Your task to perform on an android device: check battery use Image 0: 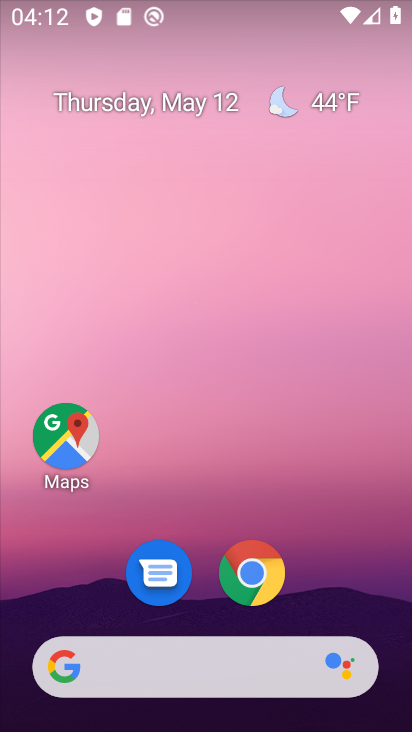
Step 0: drag from (382, 641) to (330, 134)
Your task to perform on an android device: check battery use Image 1: 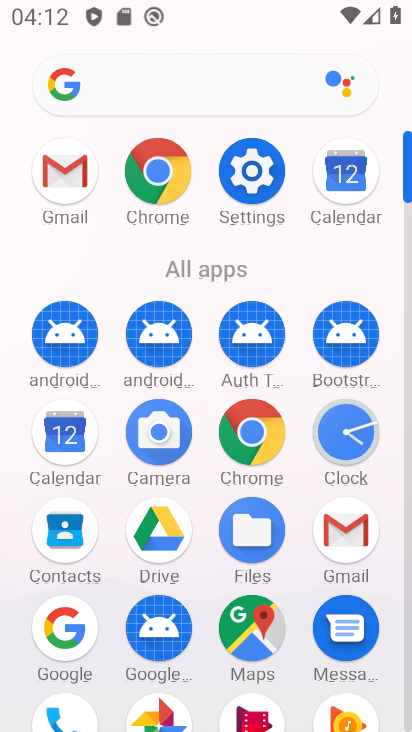
Step 1: click (410, 707)
Your task to perform on an android device: check battery use Image 2: 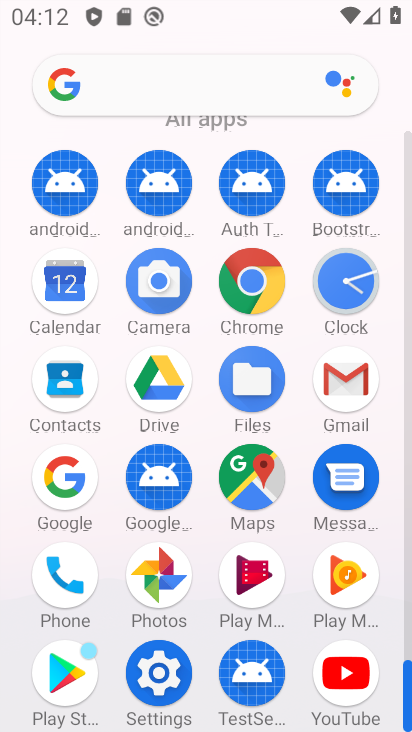
Step 2: click (160, 672)
Your task to perform on an android device: check battery use Image 3: 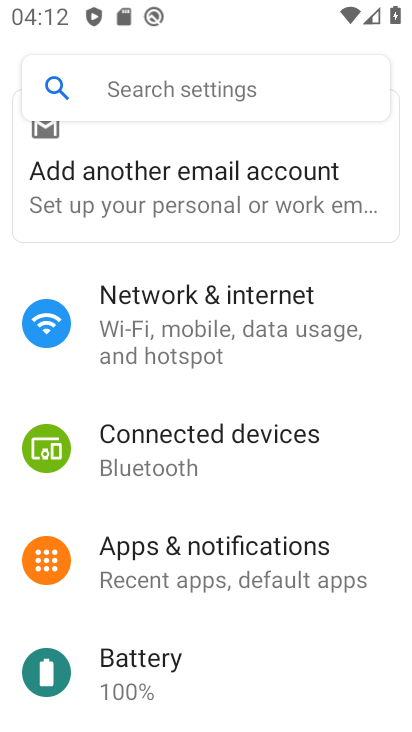
Step 3: click (141, 652)
Your task to perform on an android device: check battery use Image 4: 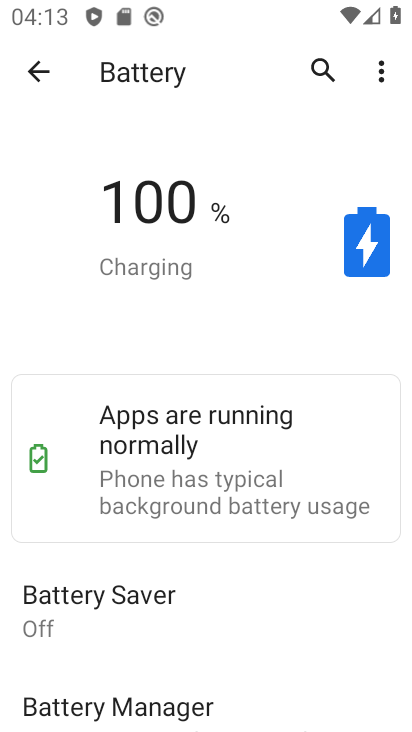
Step 4: click (377, 72)
Your task to perform on an android device: check battery use Image 5: 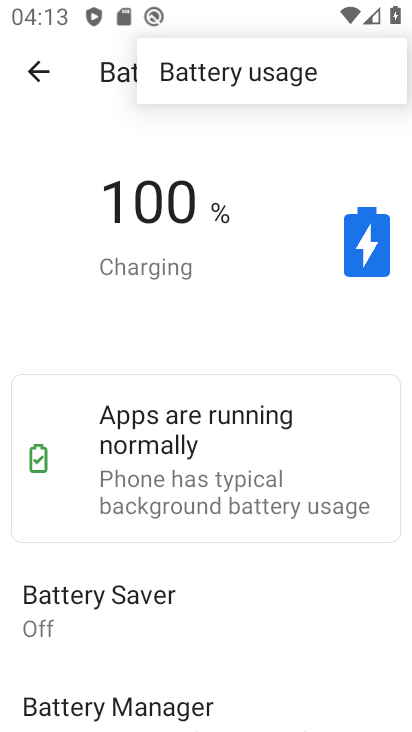
Step 5: click (250, 74)
Your task to perform on an android device: check battery use Image 6: 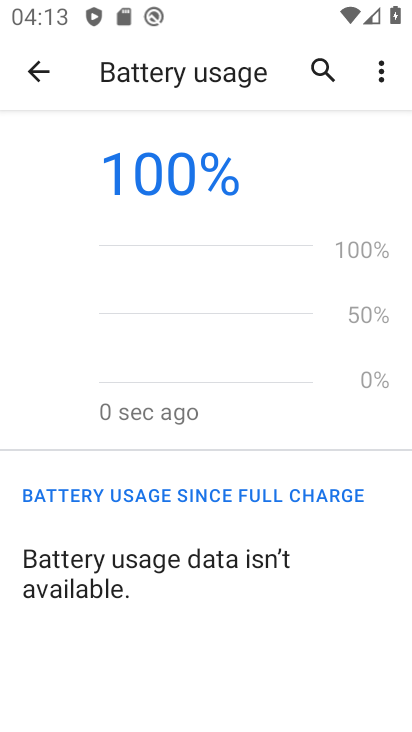
Step 6: task complete